Your task to perform on an android device: Open accessibility settings Image 0: 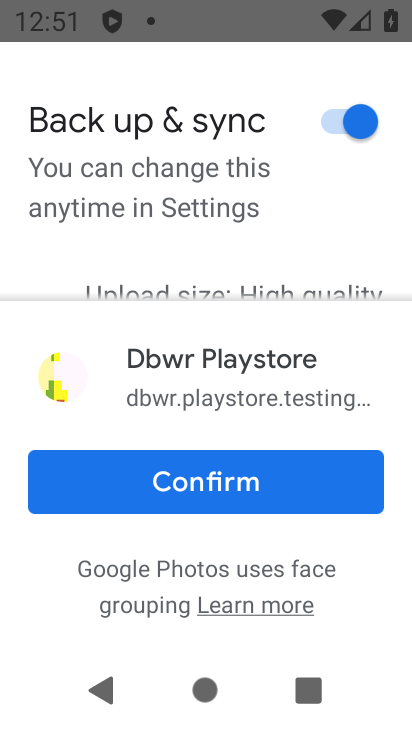
Step 0: press home button
Your task to perform on an android device: Open accessibility settings Image 1: 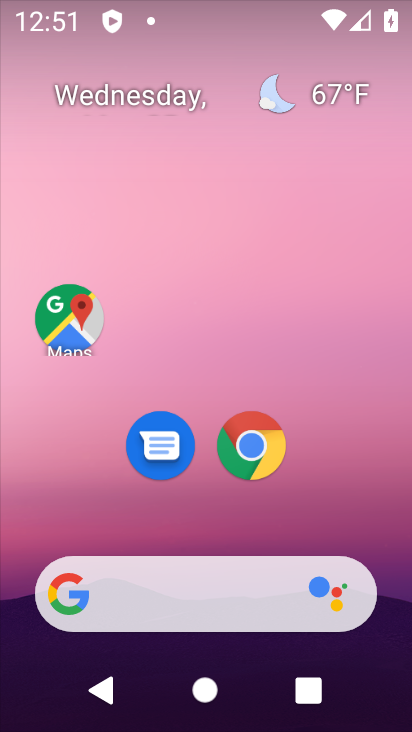
Step 1: drag from (370, 528) to (318, 114)
Your task to perform on an android device: Open accessibility settings Image 2: 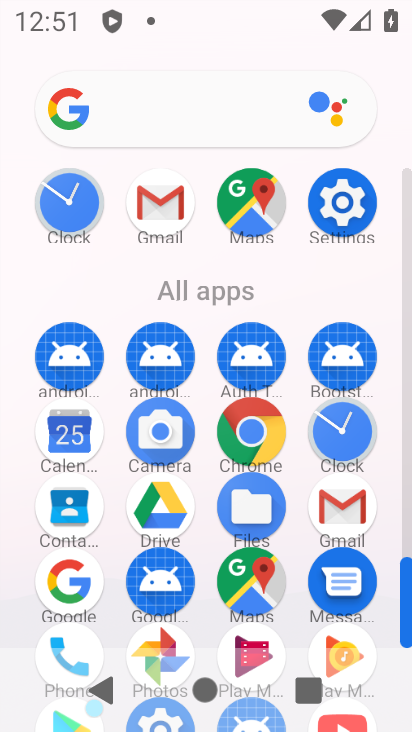
Step 2: click (338, 203)
Your task to perform on an android device: Open accessibility settings Image 3: 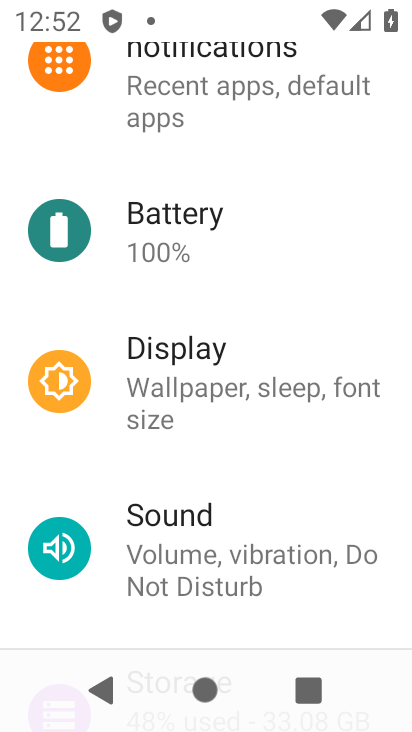
Step 3: drag from (337, 458) to (327, 91)
Your task to perform on an android device: Open accessibility settings Image 4: 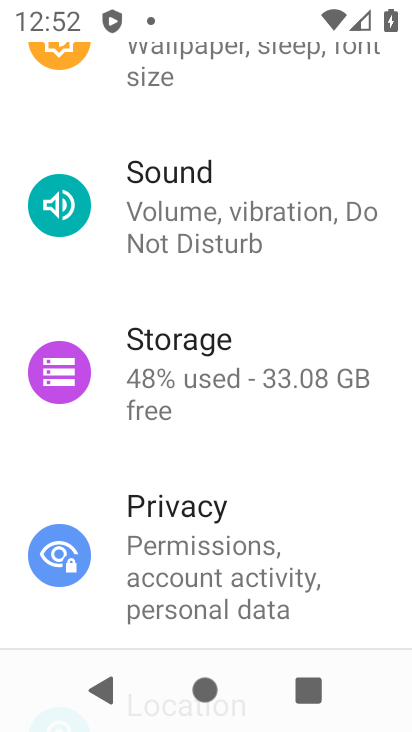
Step 4: drag from (309, 450) to (298, 63)
Your task to perform on an android device: Open accessibility settings Image 5: 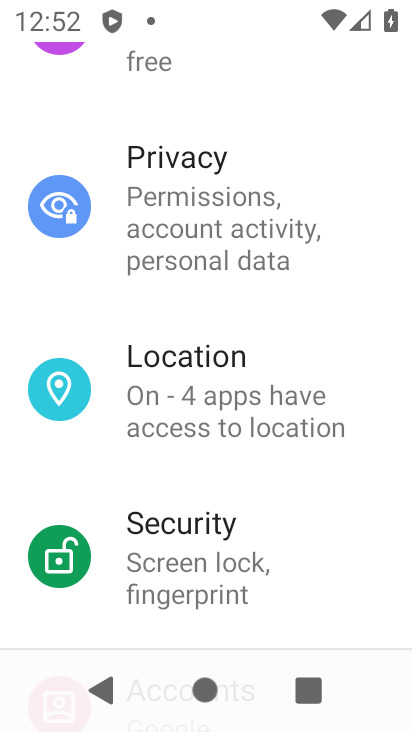
Step 5: drag from (306, 497) to (283, 120)
Your task to perform on an android device: Open accessibility settings Image 6: 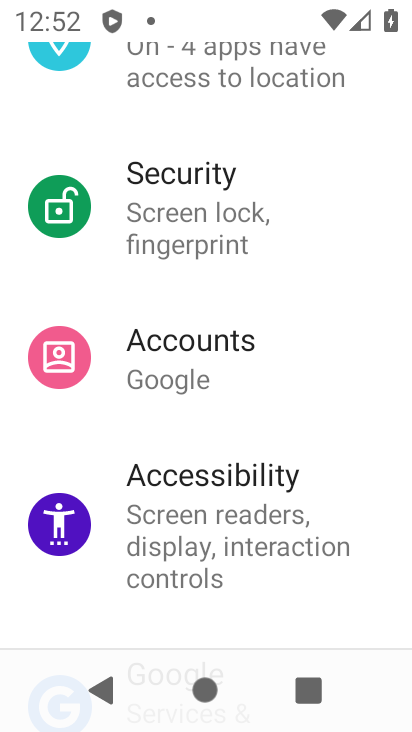
Step 6: click (278, 469)
Your task to perform on an android device: Open accessibility settings Image 7: 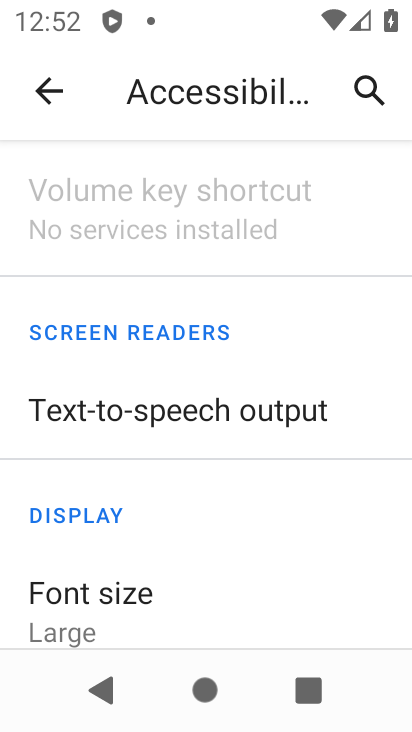
Step 7: task complete